Your task to perform on an android device: Play the last video I watched on Youtube Image 0: 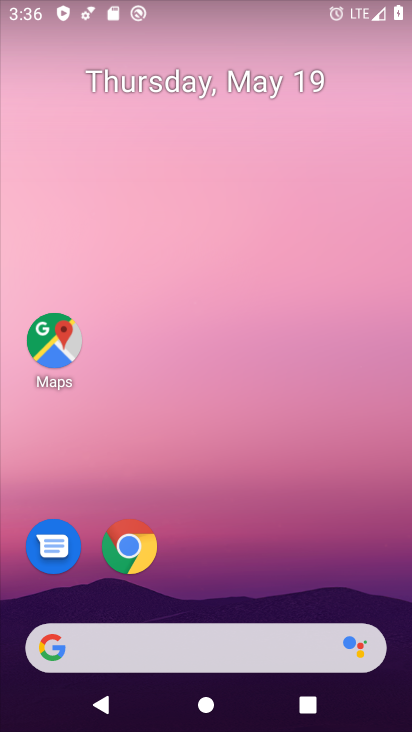
Step 0: drag from (220, 596) to (231, 10)
Your task to perform on an android device: Play the last video I watched on Youtube Image 1: 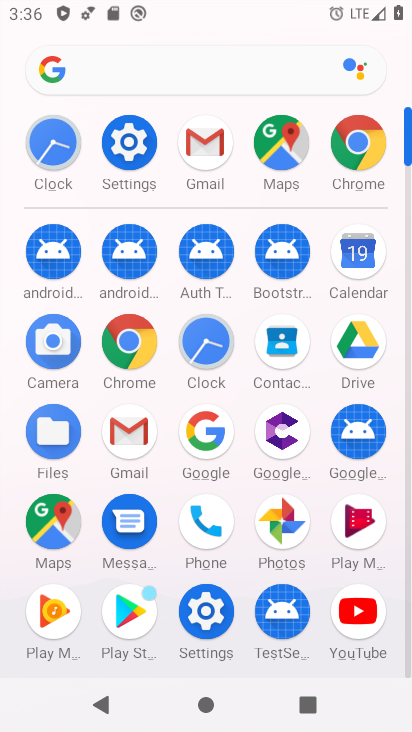
Step 1: click (355, 608)
Your task to perform on an android device: Play the last video I watched on Youtube Image 2: 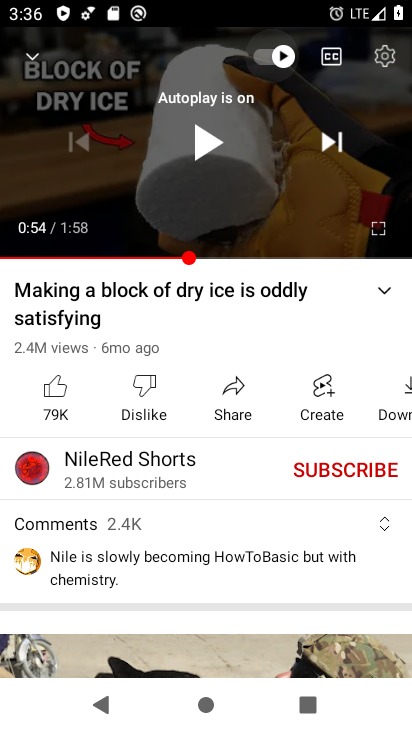
Step 2: press home button
Your task to perform on an android device: Play the last video I watched on Youtube Image 3: 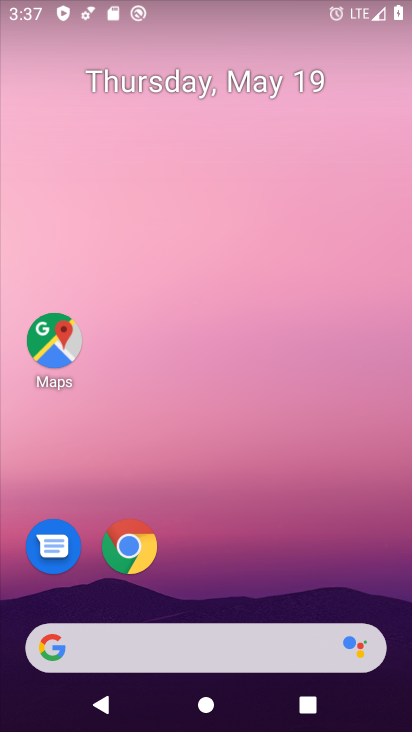
Step 3: drag from (234, 594) to (238, 111)
Your task to perform on an android device: Play the last video I watched on Youtube Image 4: 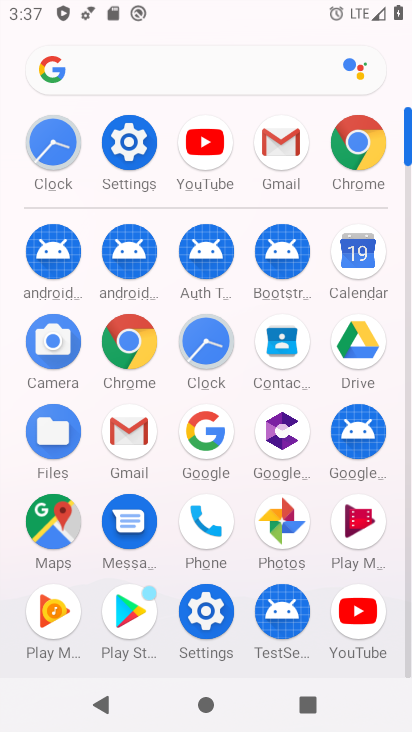
Step 4: click (367, 606)
Your task to perform on an android device: Play the last video I watched on Youtube Image 5: 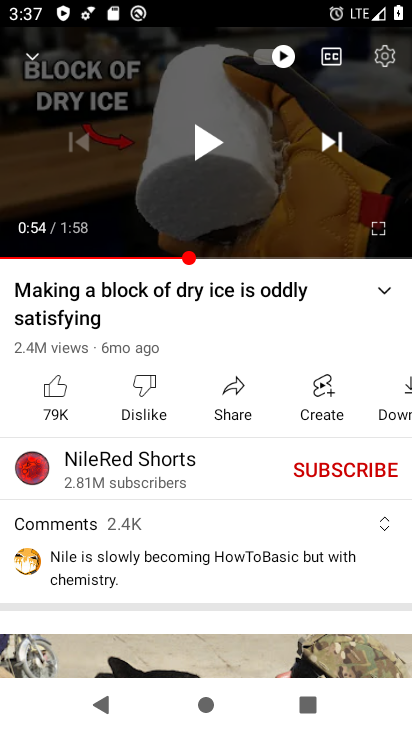
Step 5: click (218, 141)
Your task to perform on an android device: Play the last video I watched on Youtube Image 6: 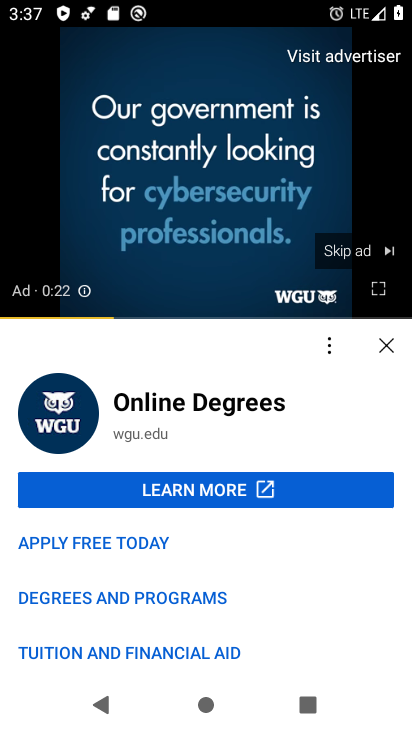
Step 6: click (373, 257)
Your task to perform on an android device: Play the last video I watched on Youtube Image 7: 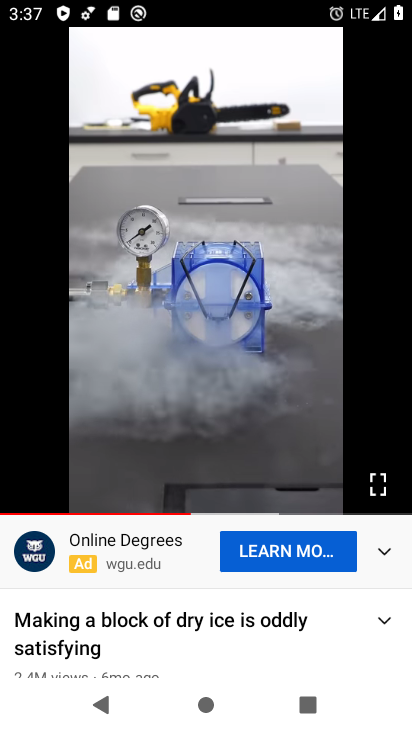
Step 7: task complete